Your task to perform on an android device: stop showing notifications on the lock screen Image 0: 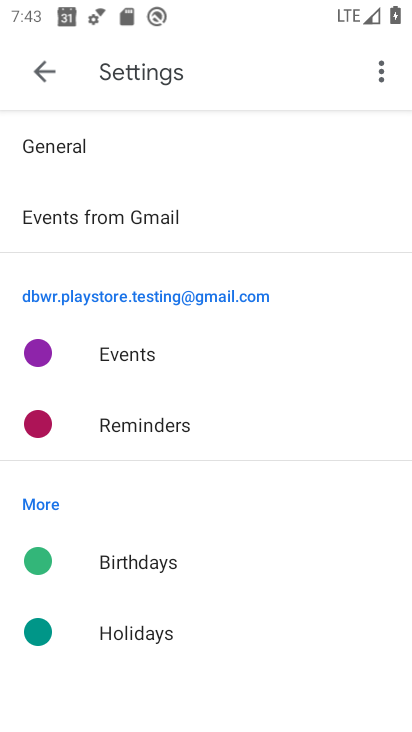
Step 0: press back button
Your task to perform on an android device: stop showing notifications on the lock screen Image 1: 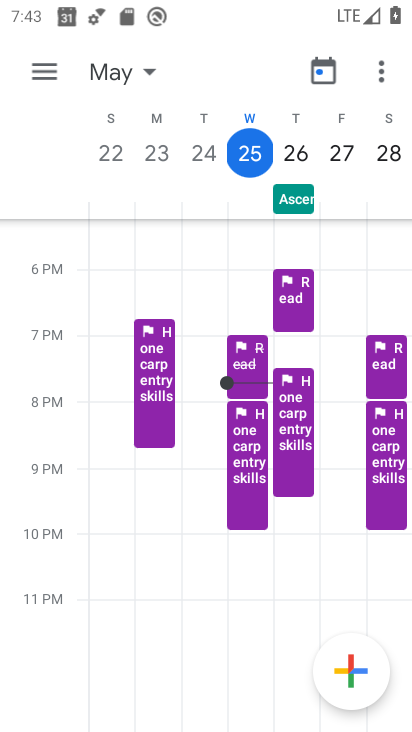
Step 1: press home button
Your task to perform on an android device: stop showing notifications on the lock screen Image 2: 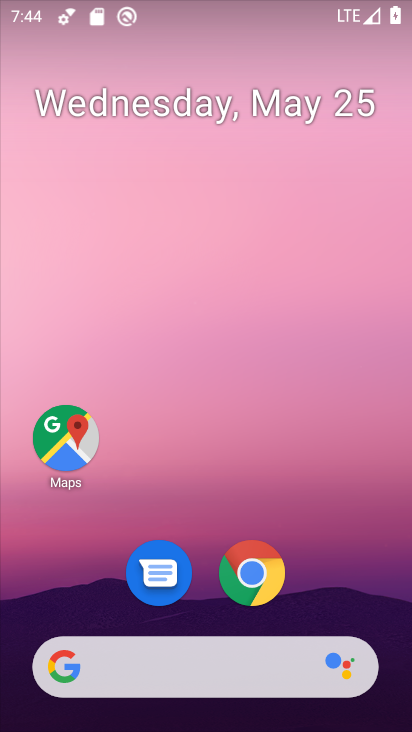
Step 2: drag from (398, 582) to (387, 457)
Your task to perform on an android device: stop showing notifications on the lock screen Image 3: 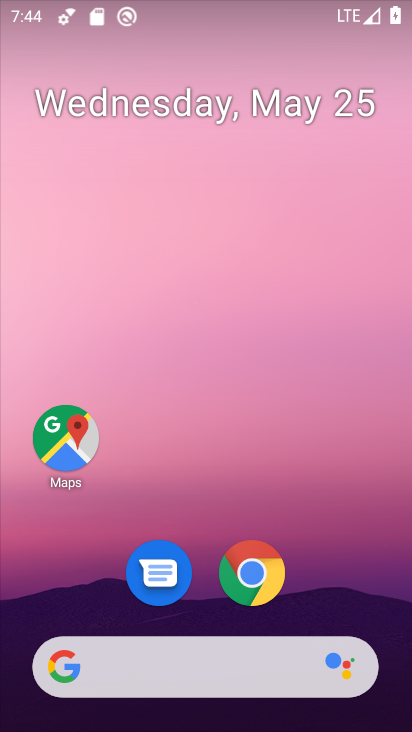
Step 3: drag from (386, 582) to (378, 357)
Your task to perform on an android device: stop showing notifications on the lock screen Image 4: 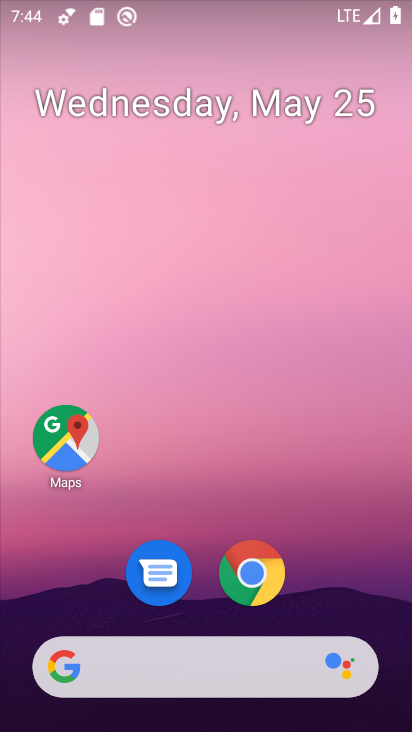
Step 4: drag from (392, 711) to (345, 199)
Your task to perform on an android device: stop showing notifications on the lock screen Image 5: 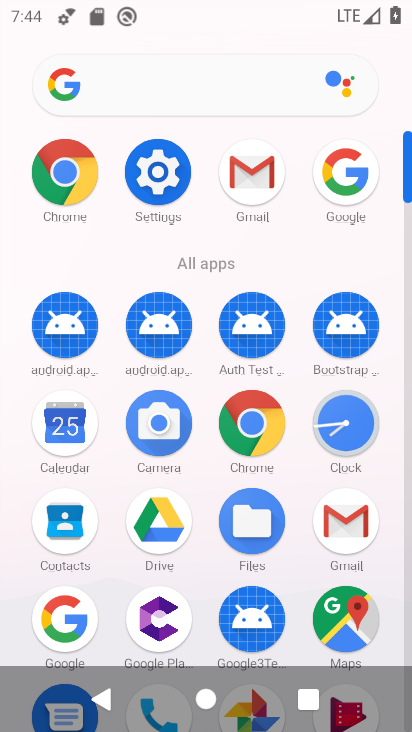
Step 5: click (139, 183)
Your task to perform on an android device: stop showing notifications on the lock screen Image 6: 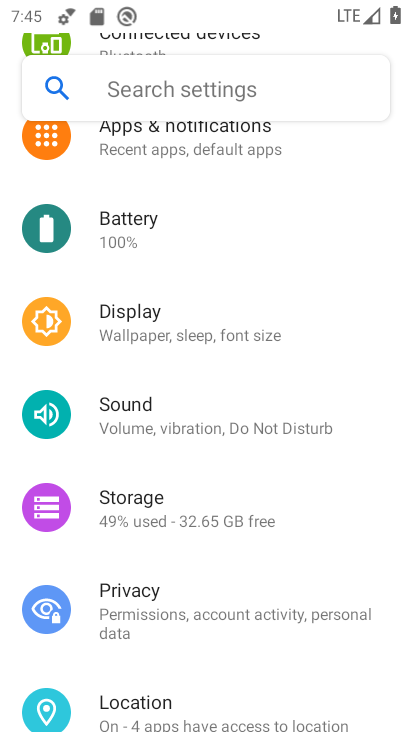
Step 6: drag from (267, 676) to (242, 424)
Your task to perform on an android device: stop showing notifications on the lock screen Image 7: 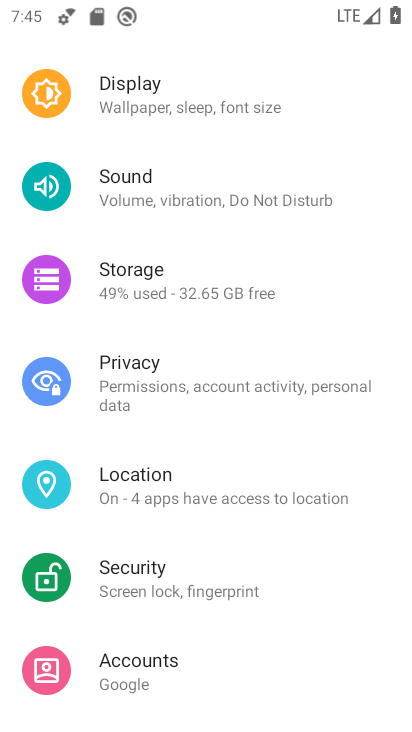
Step 7: drag from (311, 100) to (353, 658)
Your task to perform on an android device: stop showing notifications on the lock screen Image 8: 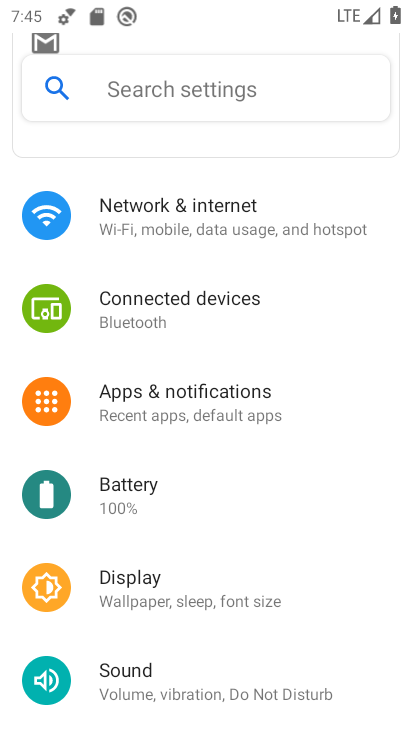
Step 8: click (144, 393)
Your task to perform on an android device: stop showing notifications on the lock screen Image 9: 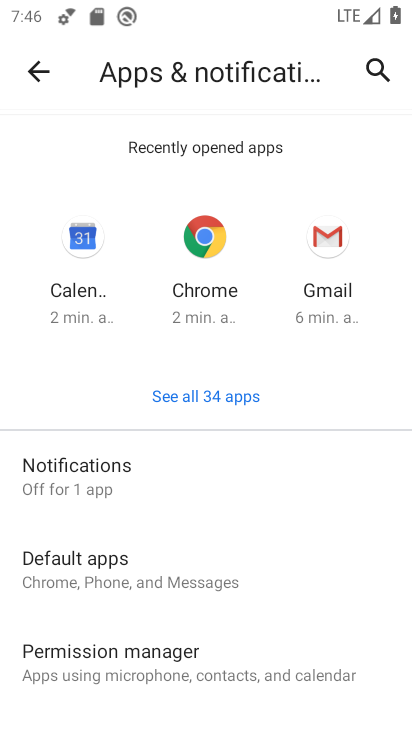
Step 9: click (93, 478)
Your task to perform on an android device: stop showing notifications on the lock screen Image 10: 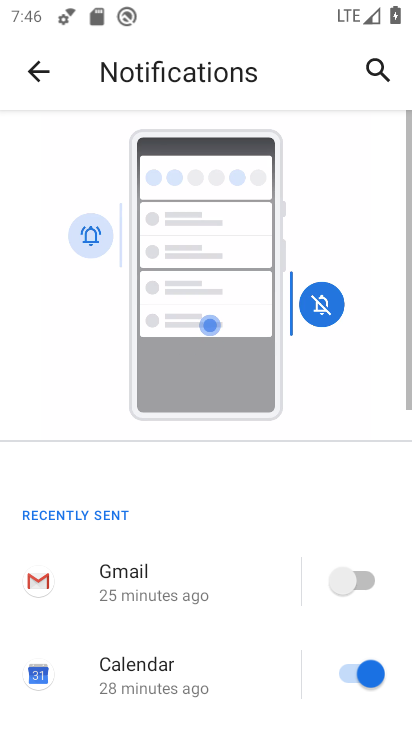
Step 10: drag from (257, 709) to (162, 154)
Your task to perform on an android device: stop showing notifications on the lock screen Image 11: 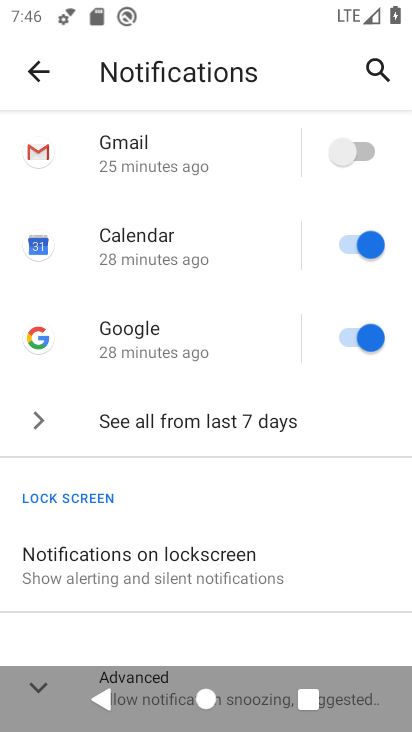
Step 11: drag from (248, 649) to (214, 262)
Your task to perform on an android device: stop showing notifications on the lock screen Image 12: 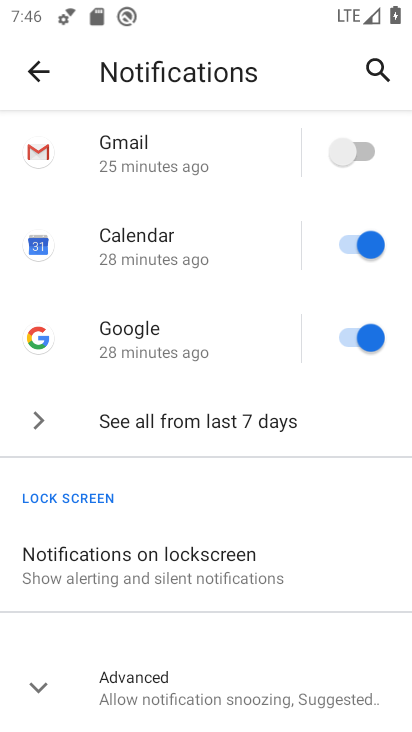
Step 12: click (32, 690)
Your task to perform on an android device: stop showing notifications on the lock screen Image 13: 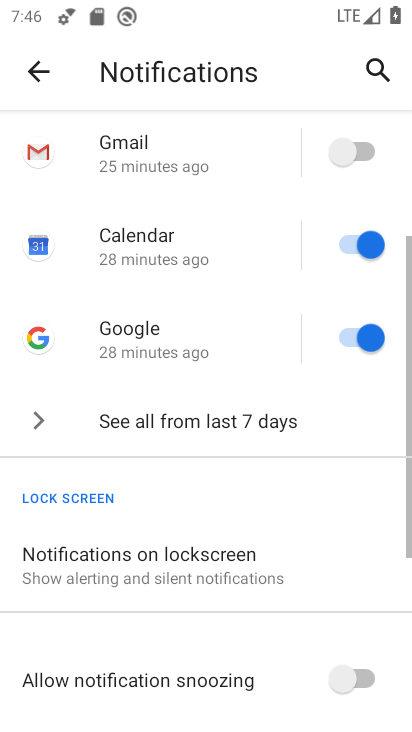
Step 13: drag from (288, 703) to (274, 317)
Your task to perform on an android device: stop showing notifications on the lock screen Image 14: 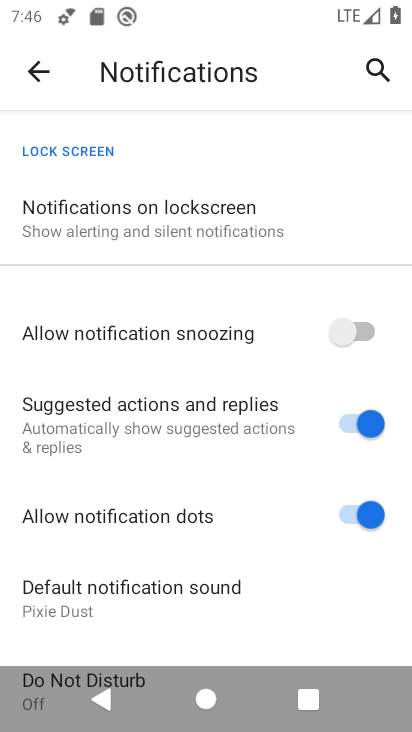
Step 14: drag from (274, 641) to (234, 315)
Your task to perform on an android device: stop showing notifications on the lock screen Image 15: 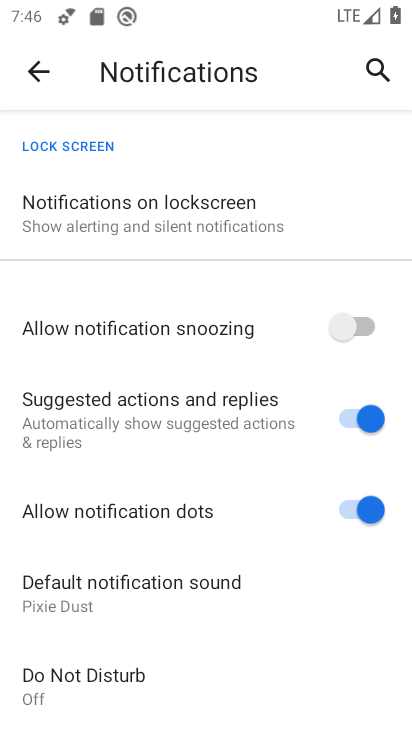
Step 15: click (120, 207)
Your task to perform on an android device: stop showing notifications on the lock screen Image 16: 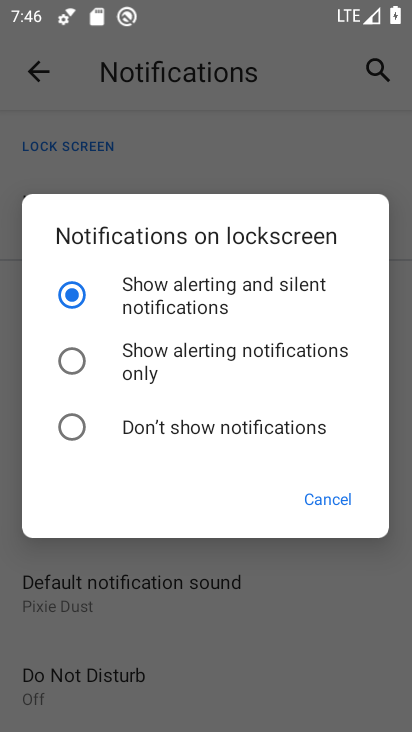
Step 16: click (57, 424)
Your task to perform on an android device: stop showing notifications on the lock screen Image 17: 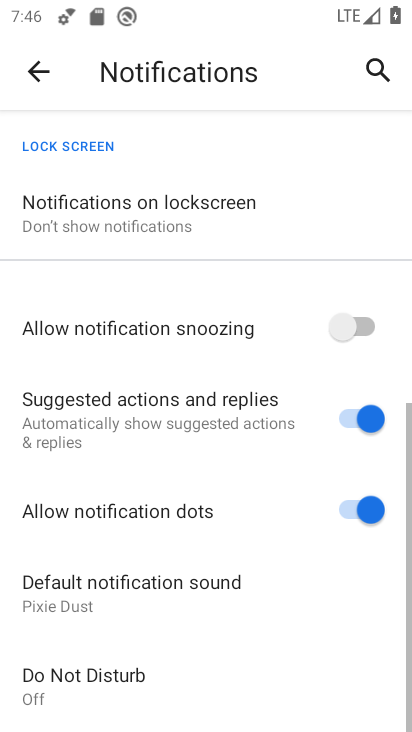
Step 17: task complete